Your task to perform on an android device: add a label to a message in the gmail app Image 0: 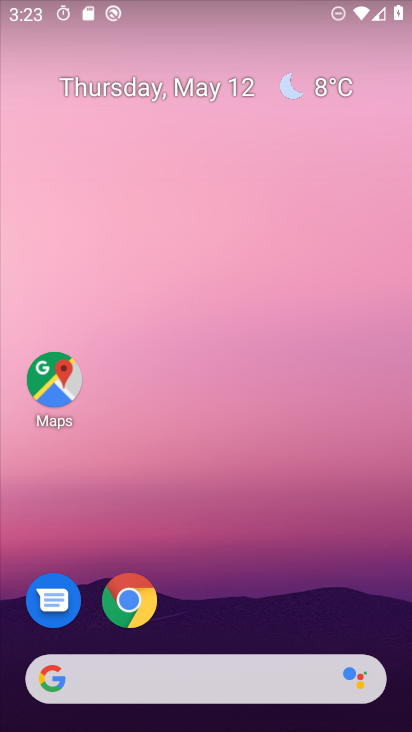
Step 0: drag from (233, 723) to (233, 207)
Your task to perform on an android device: add a label to a message in the gmail app Image 1: 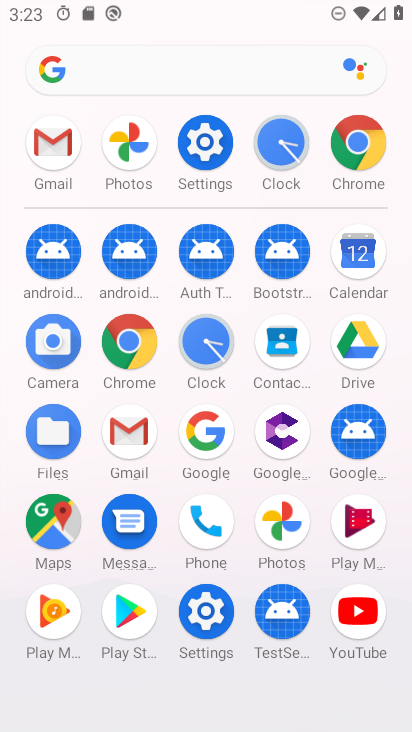
Step 1: click (53, 149)
Your task to perform on an android device: add a label to a message in the gmail app Image 2: 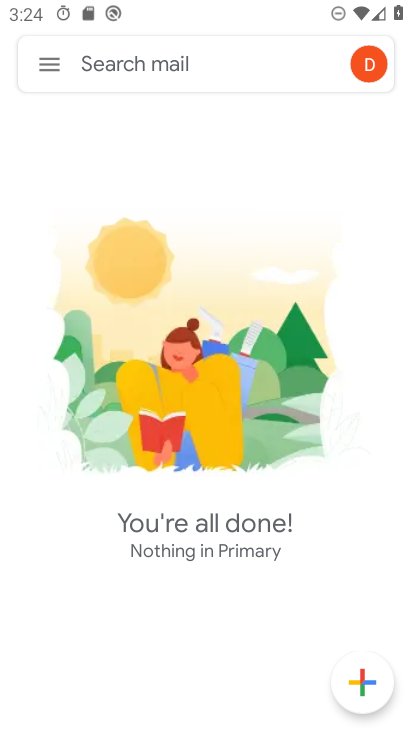
Step 2: task complete